Your task to perform on an android device: check battery use Image 0: 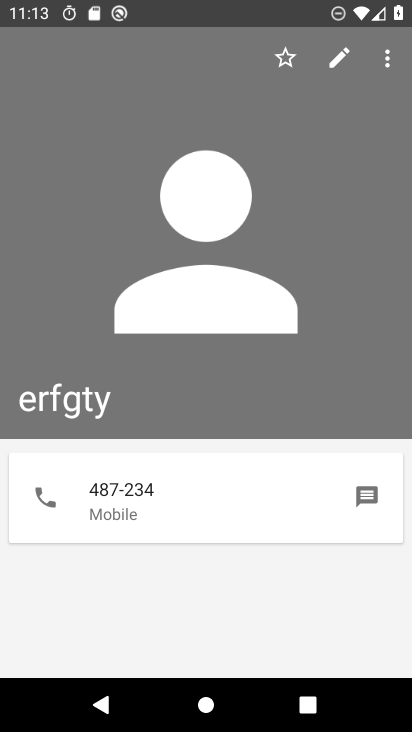
Step 0: press home button
Your task to perform on an android device: check battery use Image 1: 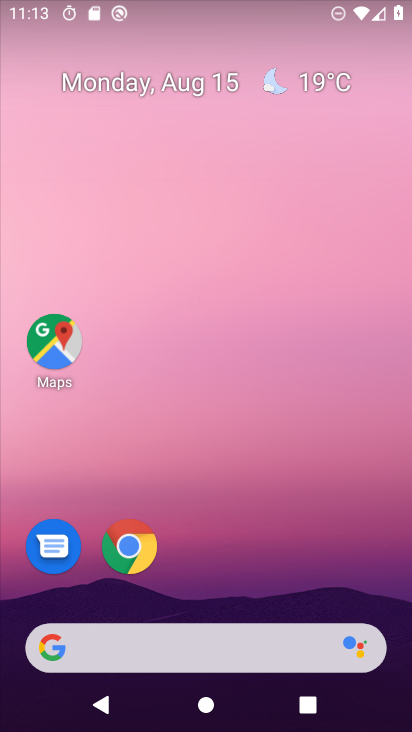
Step 1: drag from (231, 605) to (202, 42)
Your task to perform on an android device: check battery use Image 2: 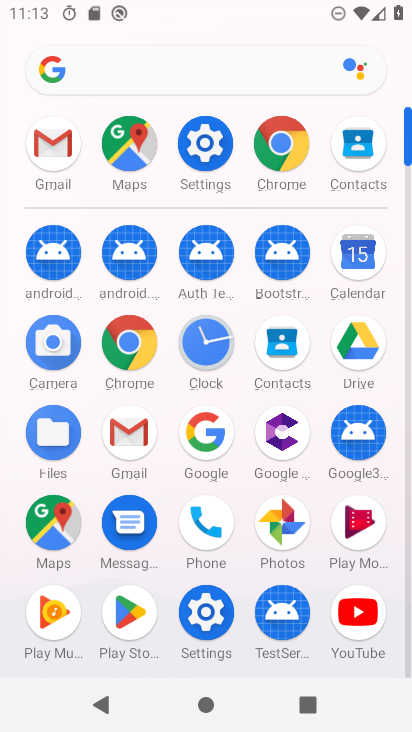
Step 2: click (207, 141)
Your task to perform on an android device: check battery use Image 3: 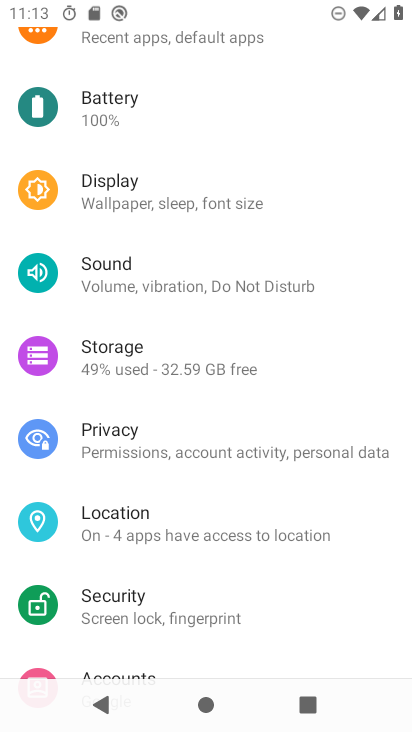
Step 3: click (97, 102)
Your task to perform on an android device: check battery use Image 4: 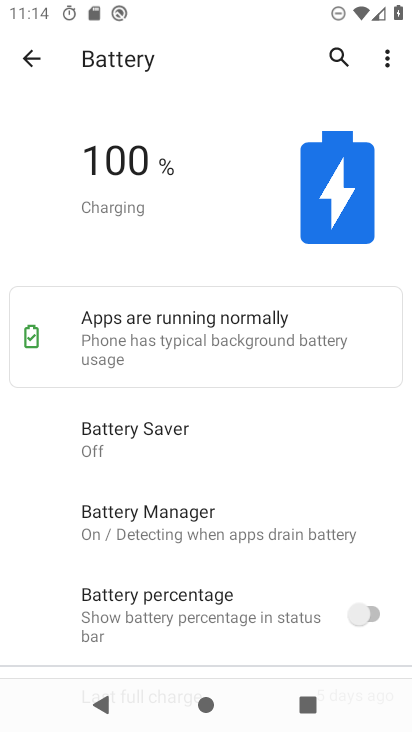
Step 4: click (384, 59)
Your task to perform on an android device: check battery use Image 5: 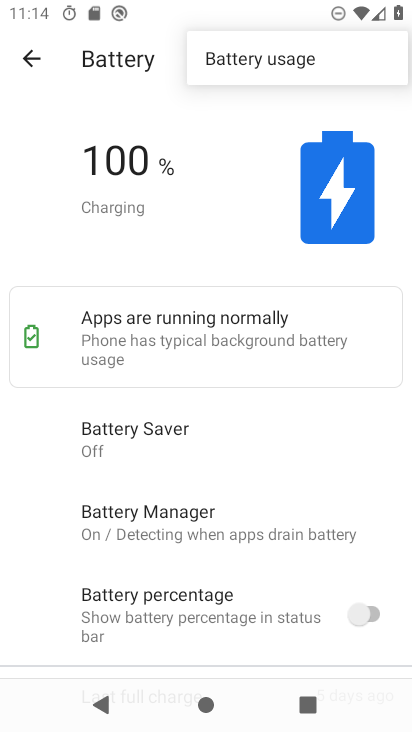
Step 5: click (296, 60)
Your task to perform on an android device: check battery use Image 6: 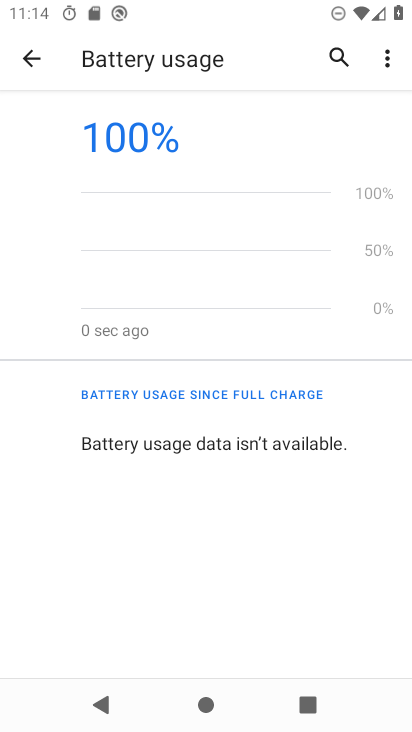
Step 6: task complete